Your task to perform on an android device: Go to Reddit.com Image 0: 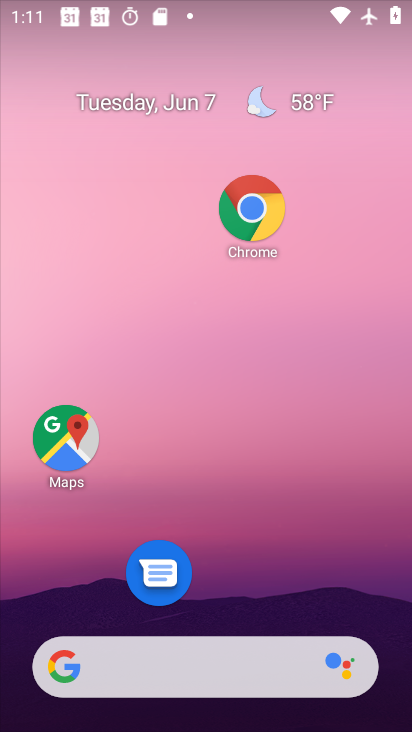
Step 0: click (230, 207)
Your task to perform on an android device: Go to Reddit.com Image 1: 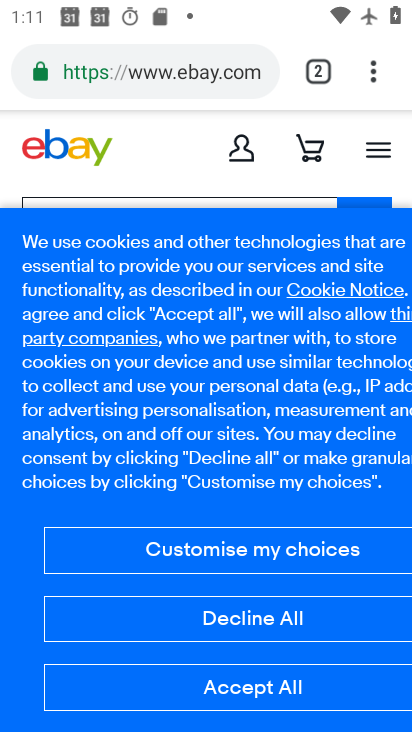
Step 1: click (313, 75)
Your task to perform on an android device: Go to Reddit.com Image 2: 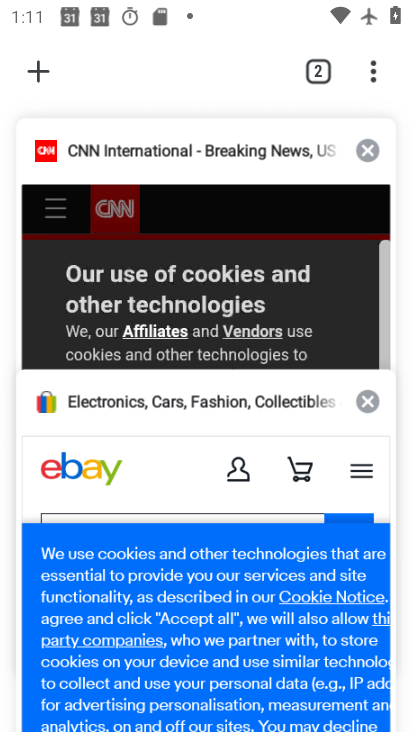
Step 2: click (38, 67)
Your task to perform on an android device: Go to Reddit.com Image 3: 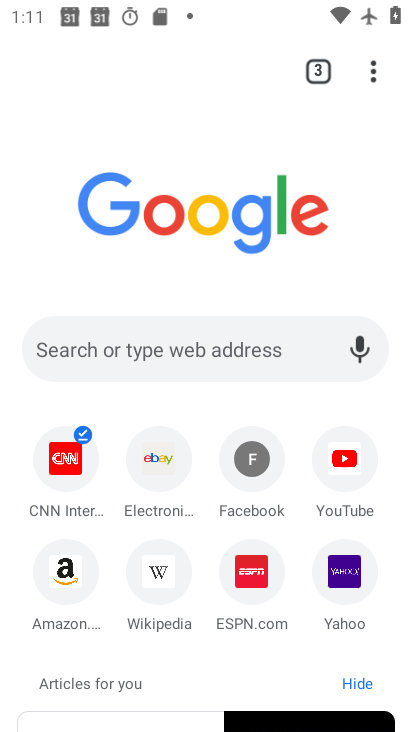
Step 3: click (146, 357)
Your task to perform on an android device: Go to Reddit.com Image 4: 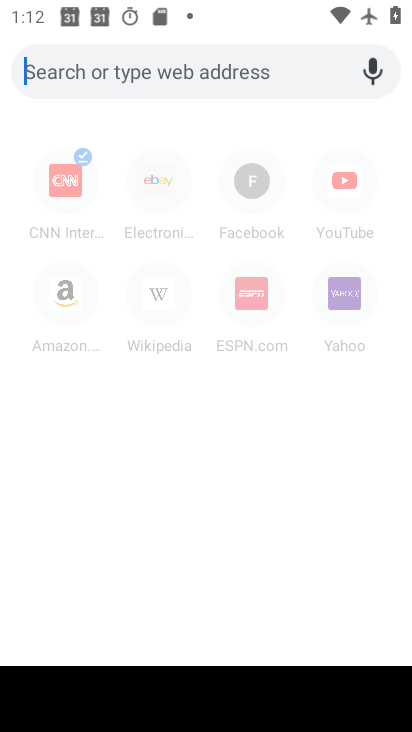
Step 4: type "Reddit.com"
Your task to perform on an android device: Go to Reddit.com Image 5: 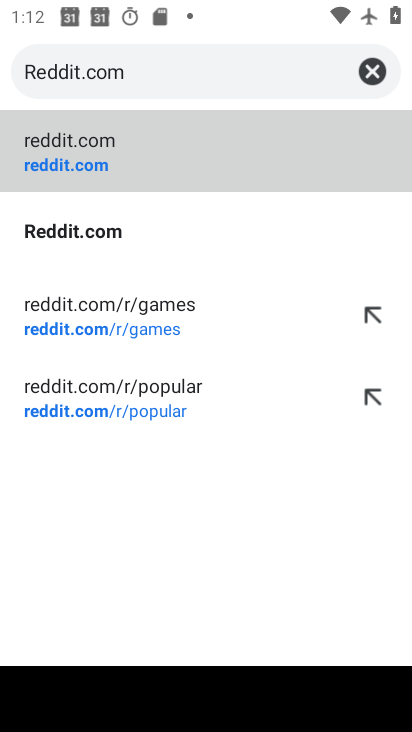
Step 5: click (190, 131)
Your task to perform on an android device: Go to Reddit.com Image 6: 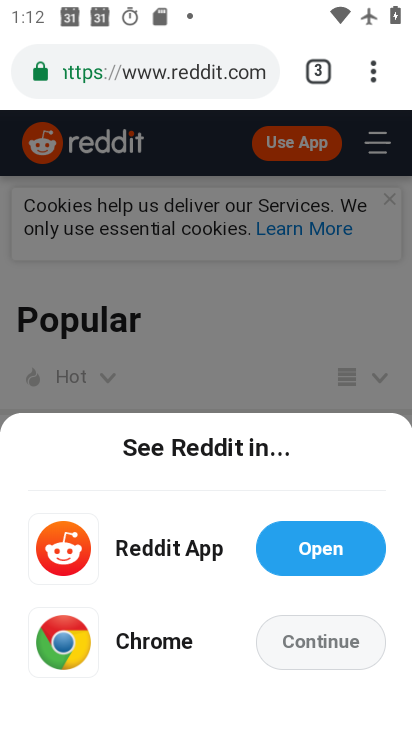
Step 6: click (358, 653)
Your task to perform on an android device: Go to Reddit.com Image 7: 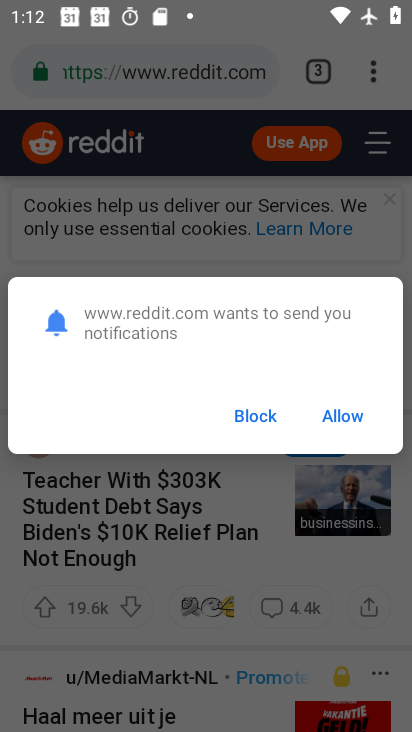
Step 7: click (339, 411)
Your task to perform on an android device: Go to Reddit.com Image 8: 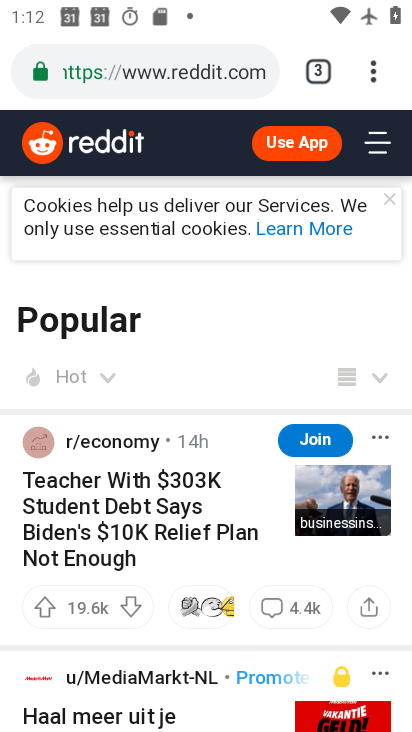
Step 8: task complete